Your task to perform on an android device: toggle notifications settings in the gmail app Image 0: 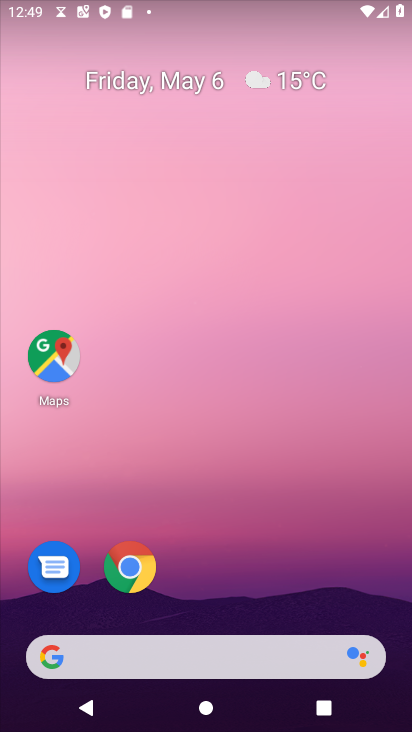
Step 0: drag from (299, 512) to (273, 100)
Your task to perform on an android device: toggle notifications settings in the gmail app Image 1: 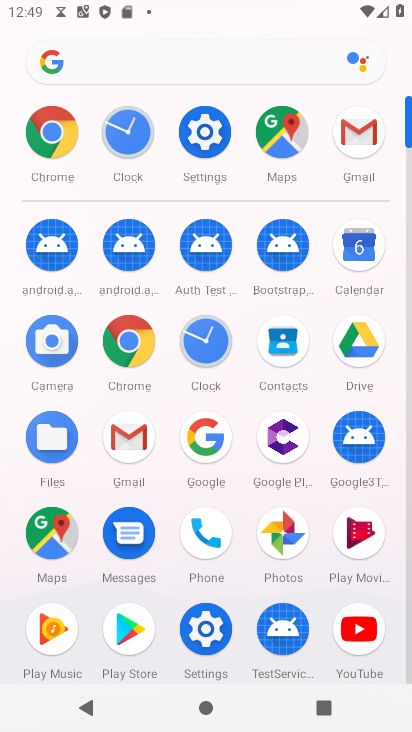
Step 1: click (364, 131)
Your task to perform on an android device: toggle notifications settings in the gmail app Image 2: 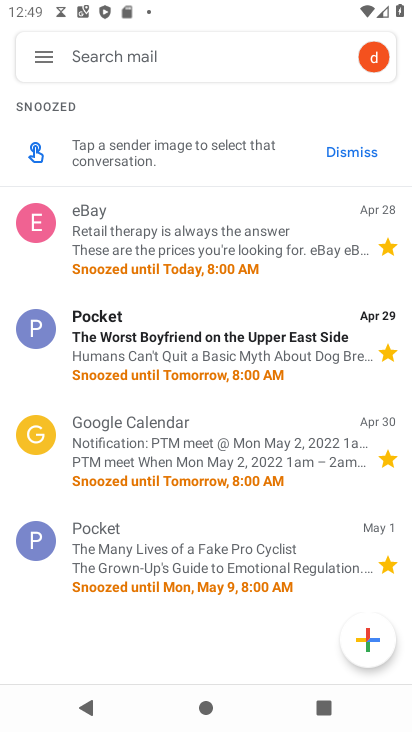
Step 2: click (48, 61)
Your task to perform on an android device: toggle notifications settings in the gmail app Image 3: 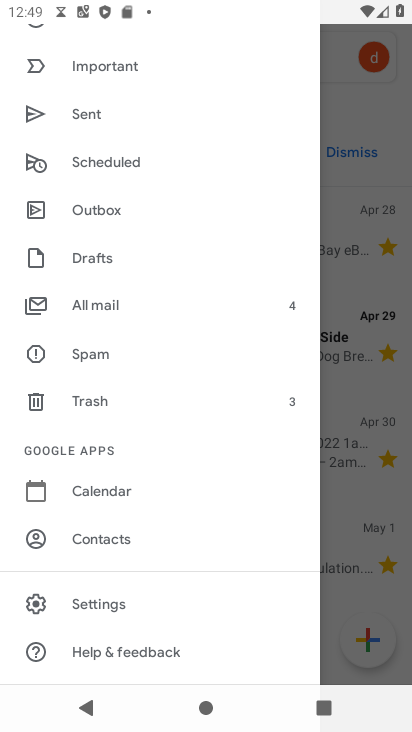
Step 3: click (107, 601)
Your task to perform on an android device: toggle notifications settings in the gmail app Image 4: 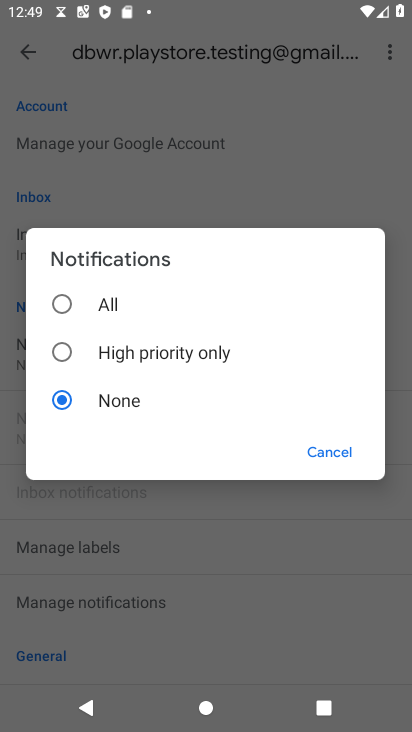
Step 4: click (54, 301)
Your task to perform on an android device: toggle notifications settings in the gmail app Image 5: 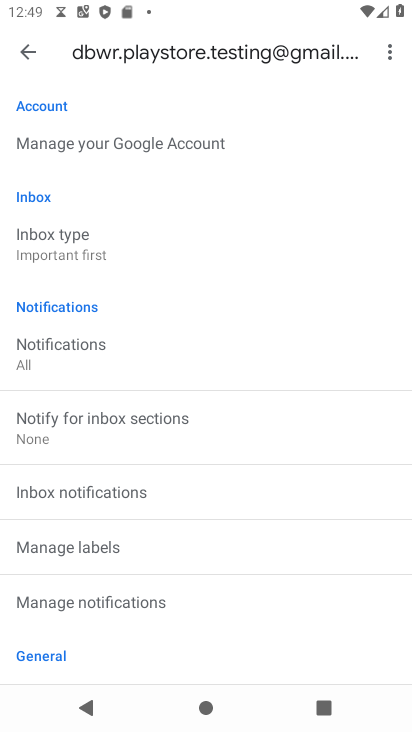
Step 5: task complete